Your task to perform on an android device: open the mobile data screen to see how much data has been used Image 0: 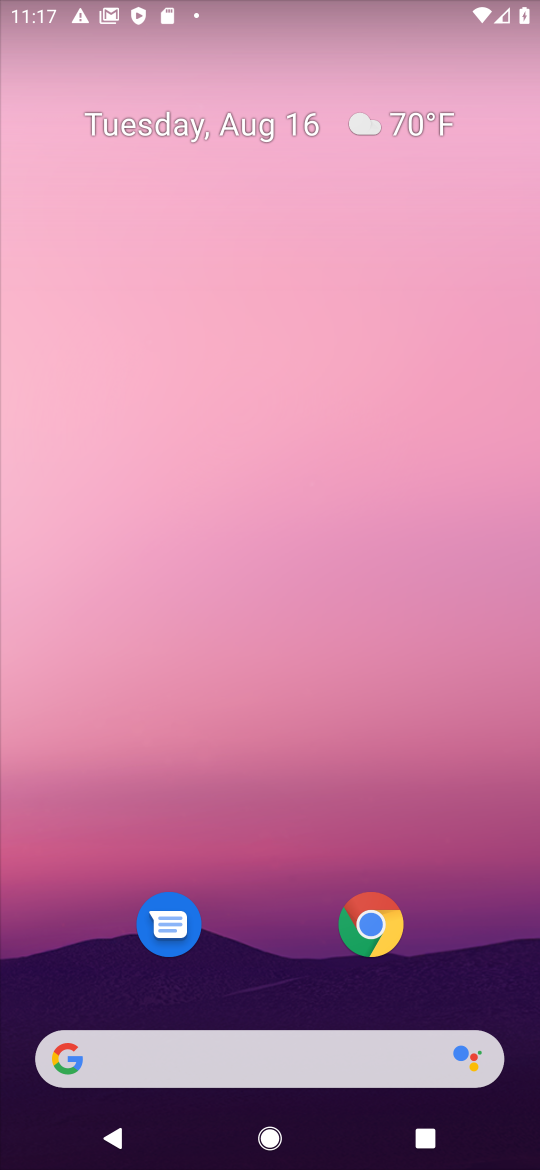
Step 0: drag from (230, 9) to (292, 1102)
Your task to perform on an android device: open the mobile data screen to see how much data has been used Image 1: 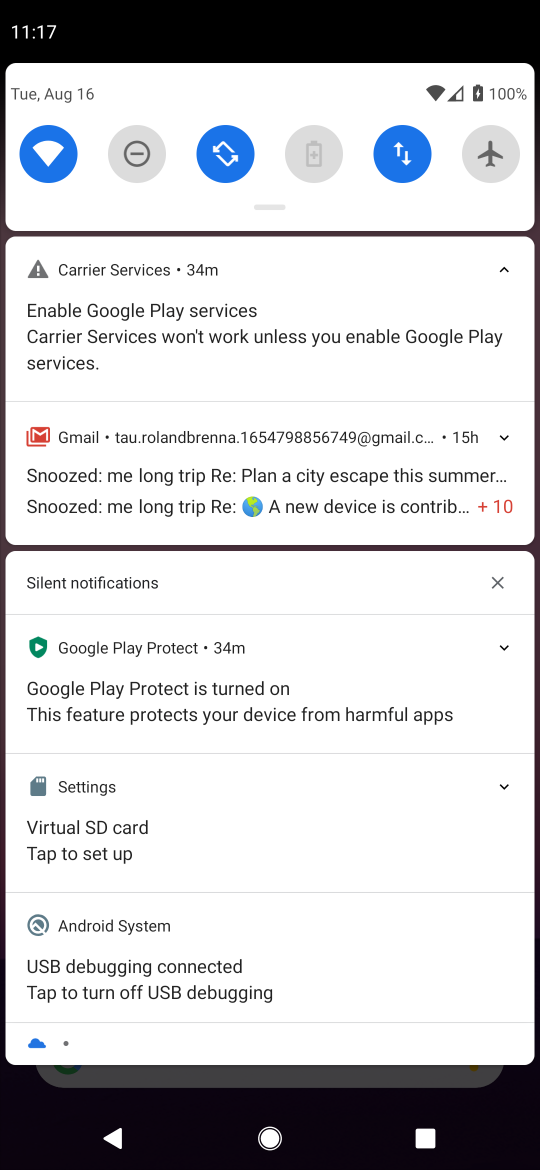
Step 1: click (397, 176)
Your task to perform on an android device: open the mobile data screen to see how much data has been used Image 2: 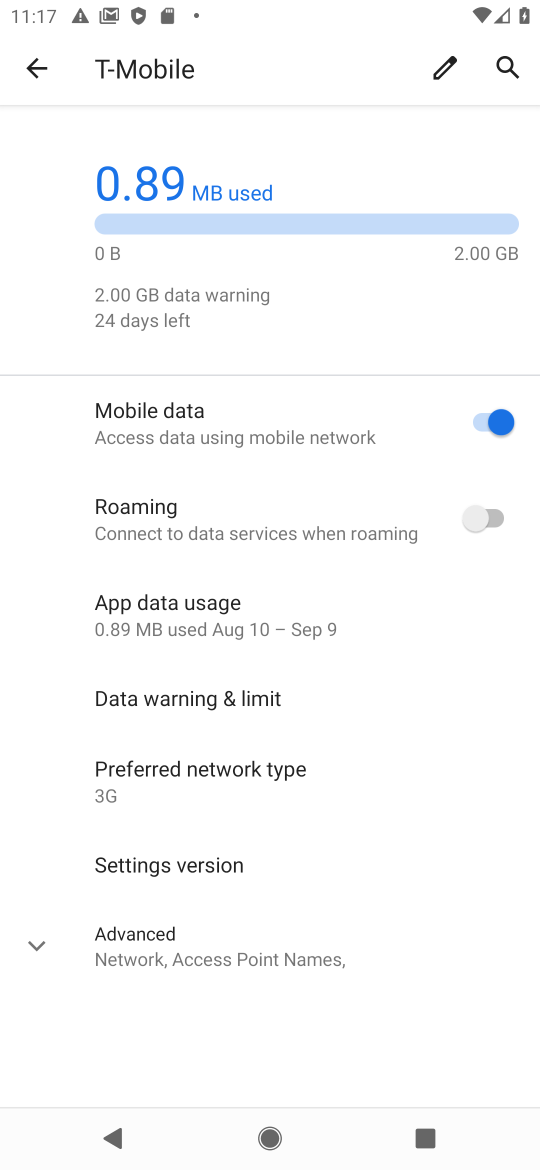
Step 2: task complete